Your task to perform on an android device: set the timer Image 0: 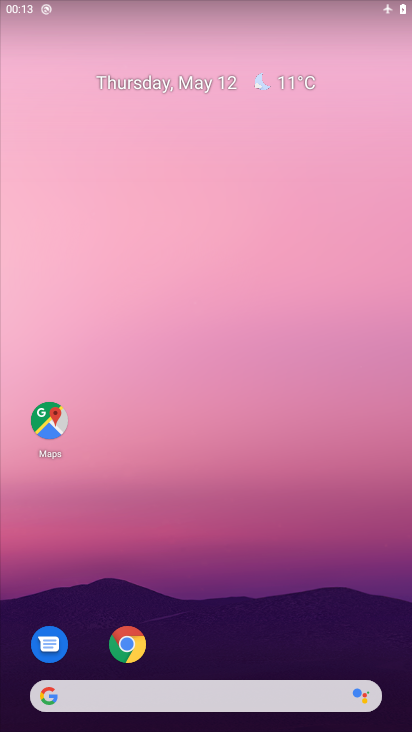
Step 0: press home button
Your task to perform on an android device: set the timer Image 1: 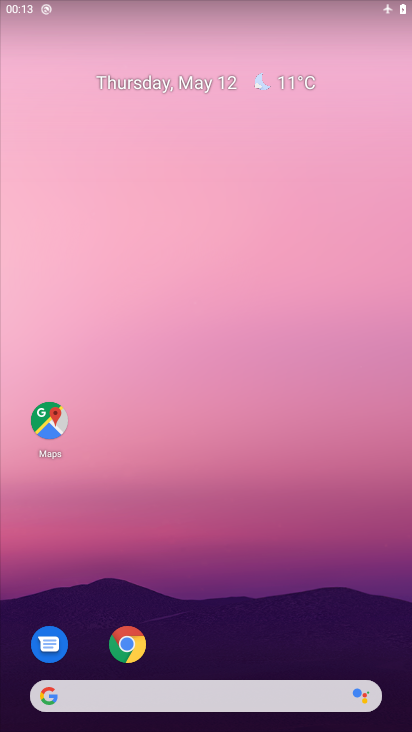
Step 1: drag from (209, 658) to (208, 71)
Your task to perform on an android device: set the timer Image 2: 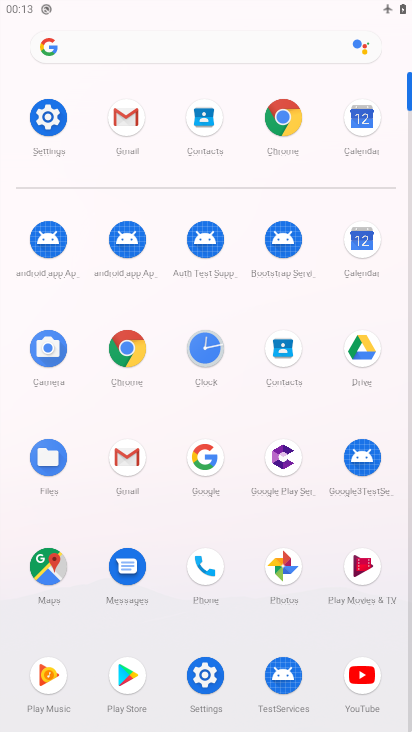
Step 2: click (203, 341)
Your task to perform on an android device: set the timer Image 3: 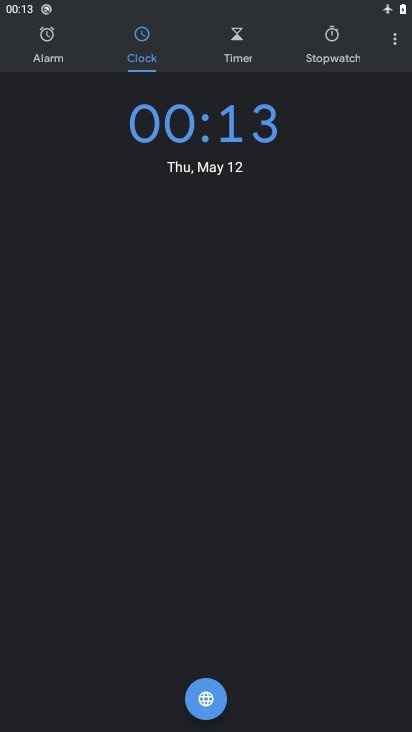
Step 3: click (234, 31)
Your task to perform on an android device: set the timer Image 4: 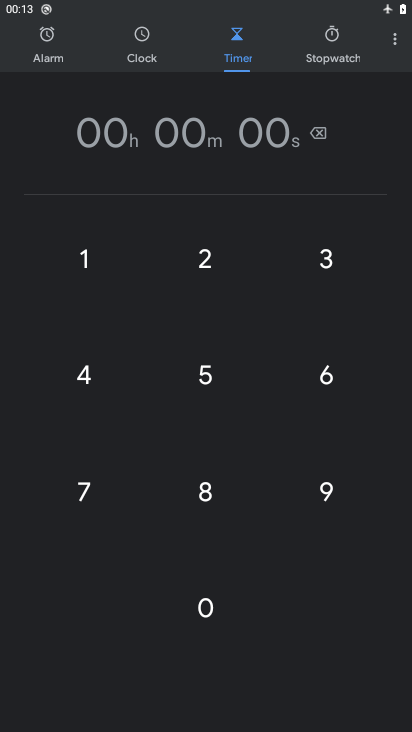
Step 4: click (314, 264)
Your task to perform on an android device: set the timer Image 5: 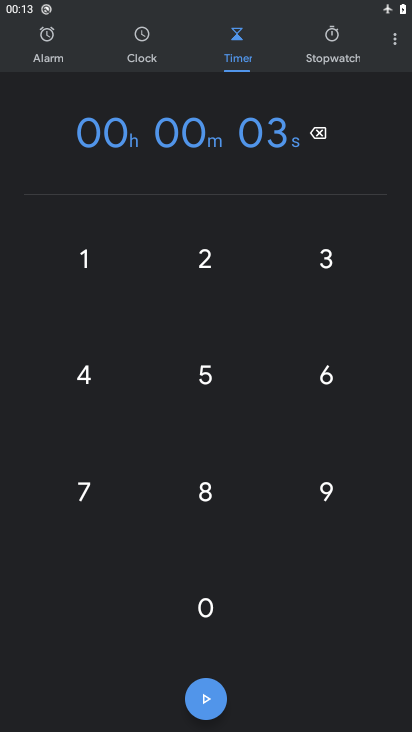
Step 5: click (314, 268)
Your task to perform on an android device: set the timer Image 6: 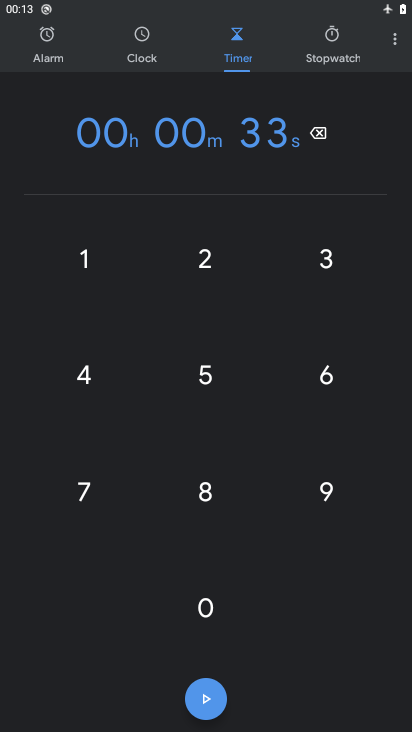
Step 6: click (206, 611)
Your task to perform on an android device: set the timer Image 7: 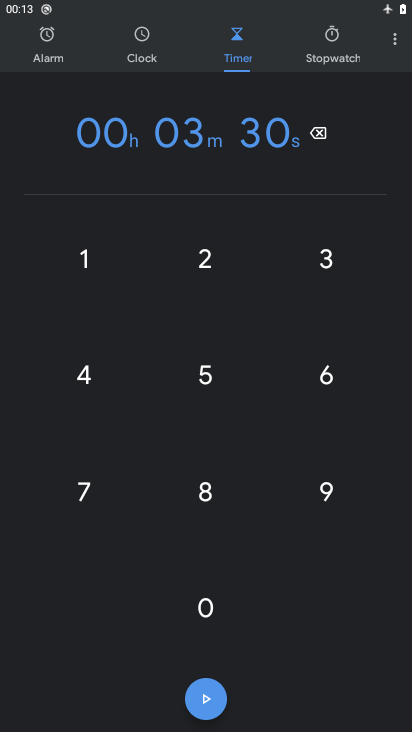
Step 7: click (206, 691)
Your task to perform on an android device: set the timer Image 8: 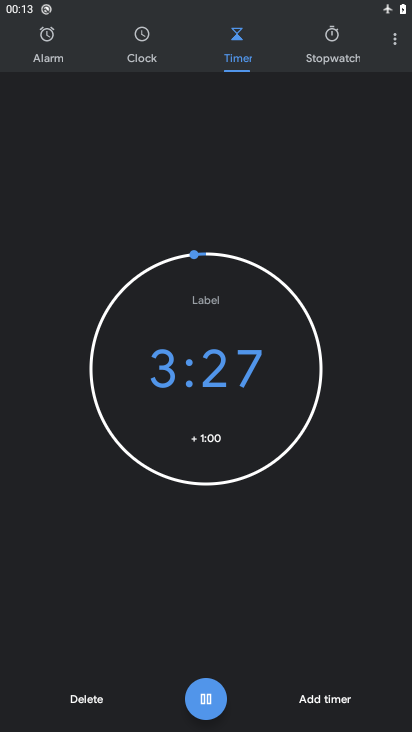
Step 8: click (211, 442)
Your task to perform on an android device: set the timer Image 9: 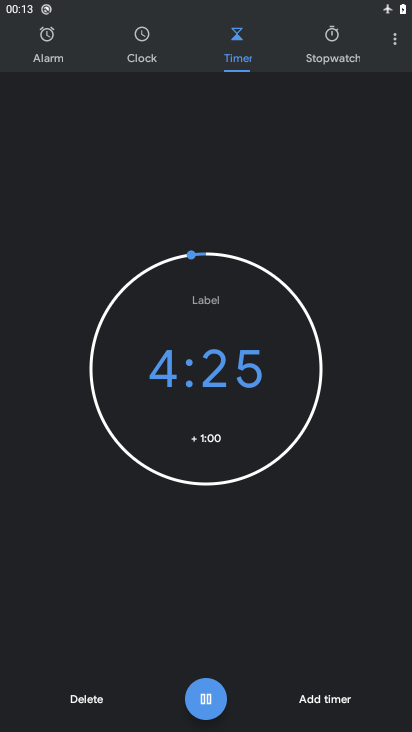
Step 9: click (211, 442)
Your task to perform on an android device: set the timer Image 10: 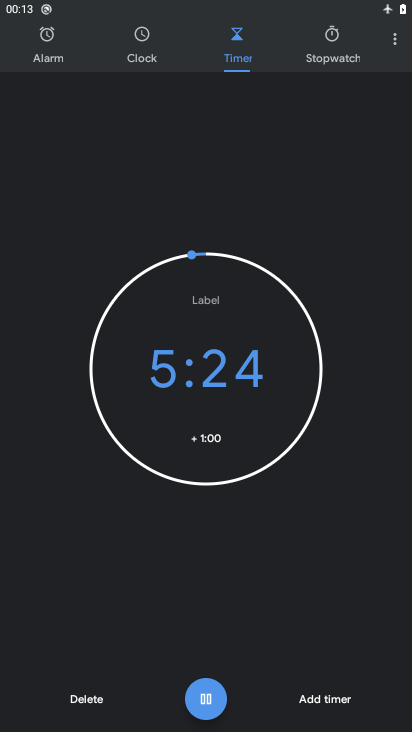
Step 10: click (211, 442)
Your task to perform on an android device: set the timer Image 11: 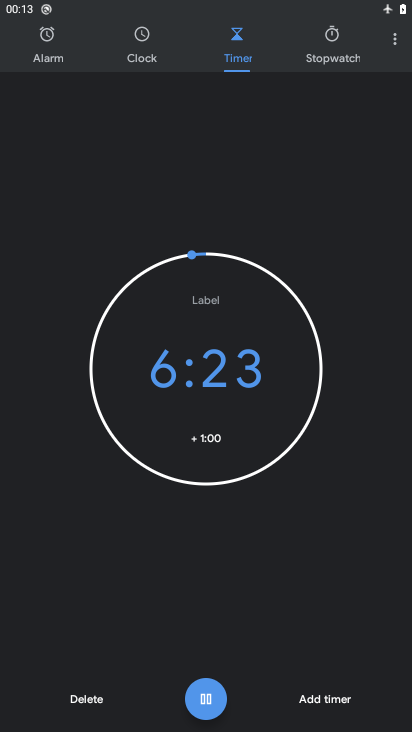
Step 11: click (211, 442)
Your task to perform on an android device: set the timer Image 12: 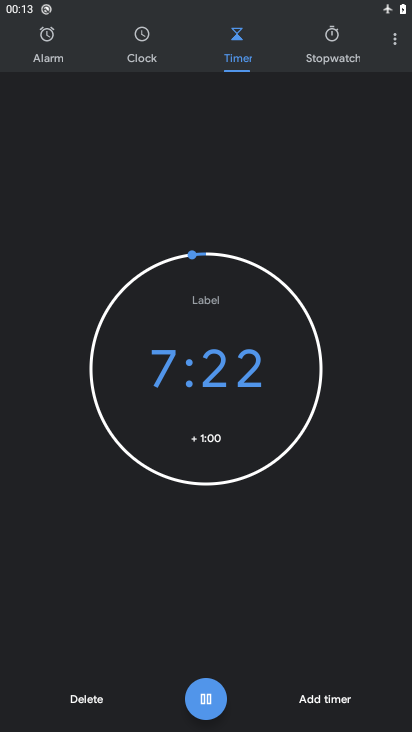
Step 12: click (211, 442)
Your task to perform on an android device: set the timer Image 13: 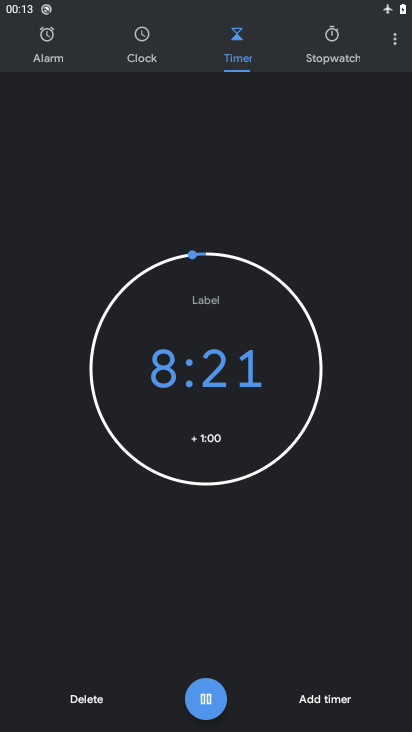
Step 13: click (211, 442)
Your task to perform on an android device: set the timer Image 14: 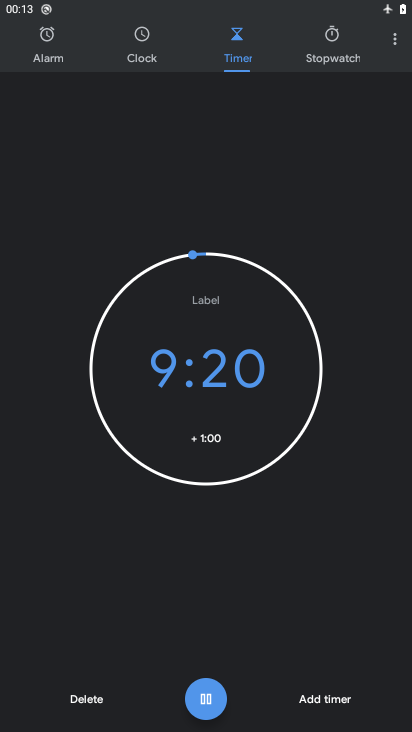
Step 14: click (211, 442)
Your task to perform on an android device: set the timer Image 15: 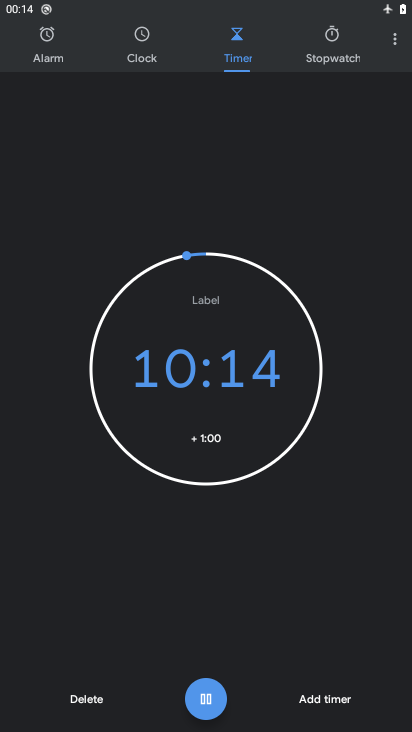
Step 15: task complete